Your task to perform on an android device: see creations saved in the google photos Image 0: 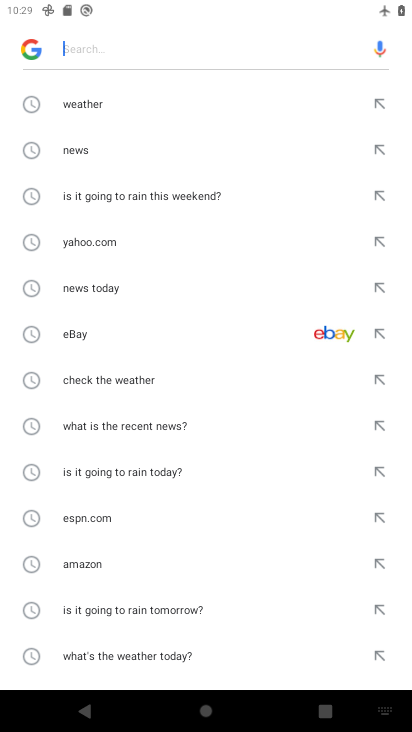
Step 0: press back button
Your task to perform on an android device: see creations saved in the google photos Image 1: 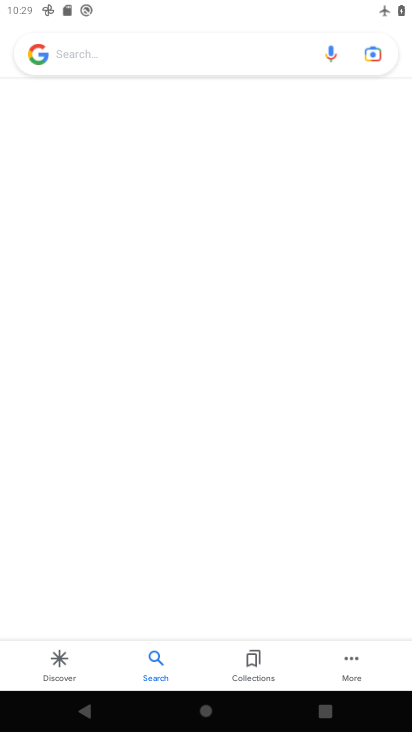
Step 1: press back button
Your task to perform on an android device: see creations saved in the google photos Image 2: 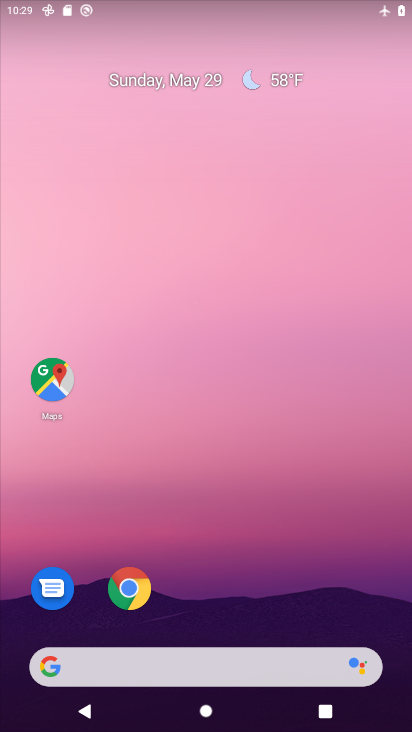
Step 2: drag from (263, 608) to (185, 49)
Your task to perform on an android device: see creations saved in the google photos Image 3: 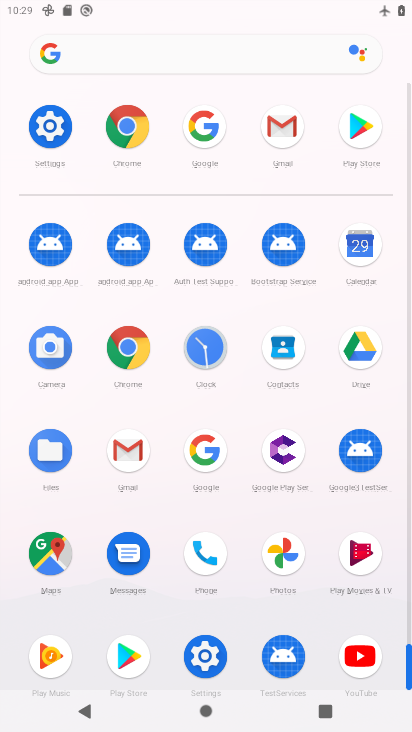
Step 3: click (287, 553)
Your task to perform on an android device: see creations saved in the google photos Image 4: 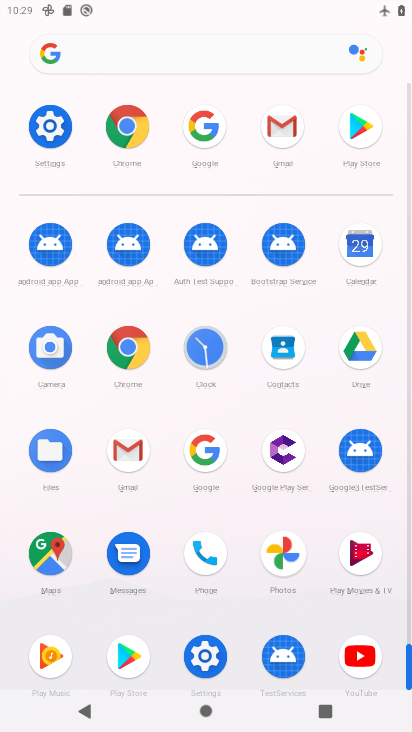
Step 4: click (285, 554)
Your task to perform on an android device: see creations saved in the google photos Image 5: 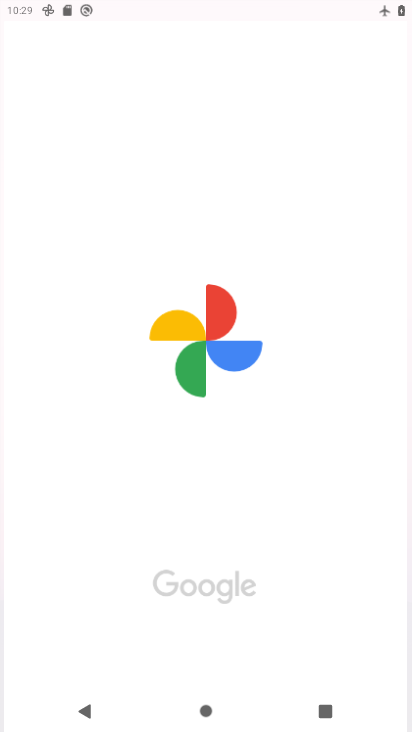
Step 5: click (286, 554)
Your task to perform on an android device: see creations saved in the google photos Image 6: 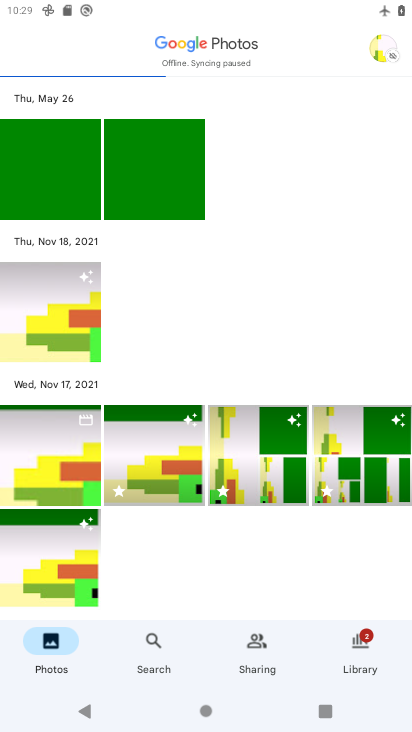
Step 6: task complete